Your task to perform on an android device: Go to Amazon Image 0: 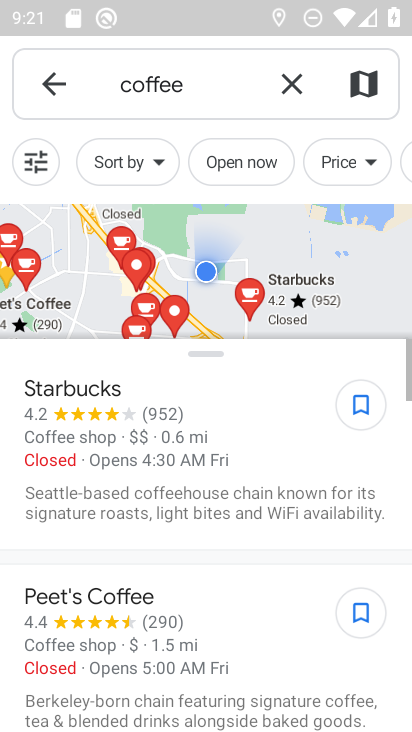
Step 0: press home button
Your task to perform on an android device: Go to Amazon Image 1: 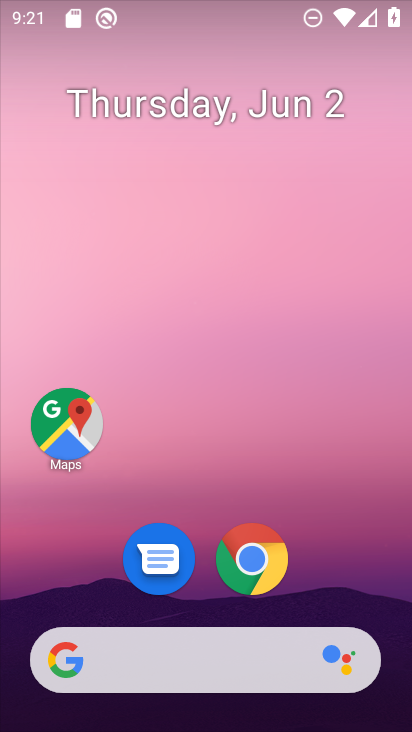
Step 1: click (254, 604)
Your task to perform on an android device: Go to Amazon Image 2: 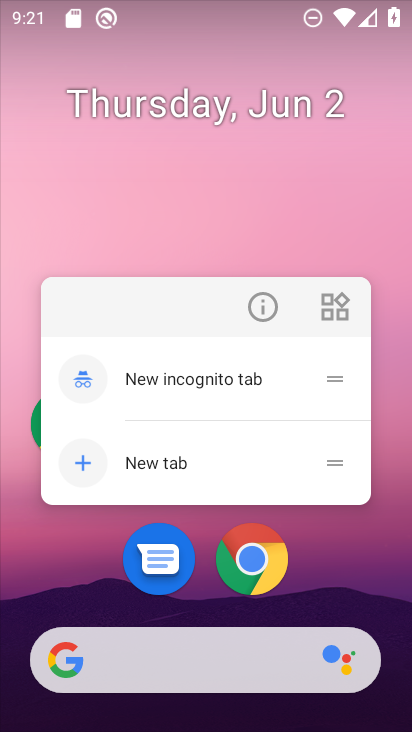
Step 2: click (241, 572)
Your task to perform on an android device: Go to Amazon Image 3: 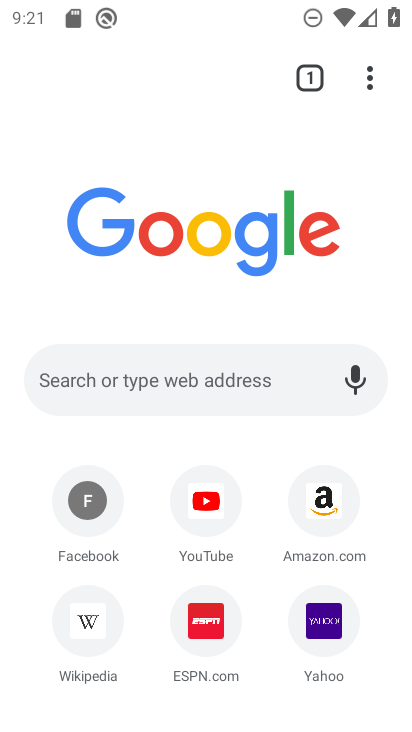
Step 3: click (330, 512)
Your task to perform on an android device: Go to Amazon Image 4: 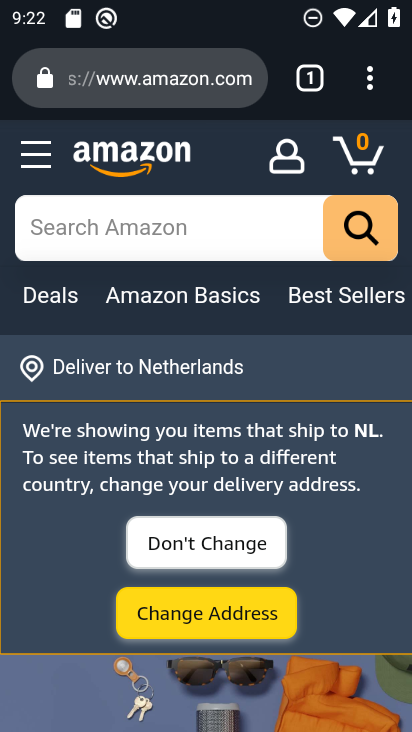
Step 4: task complete